Your task to perform on an android device: toggle airplane mode Image 0: 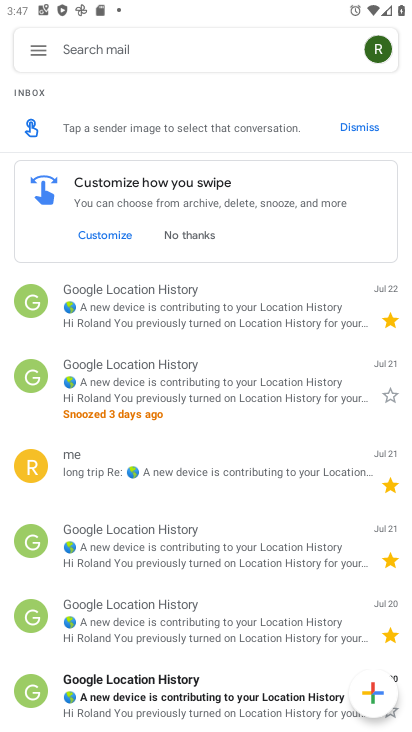
Step 0: press home button
Your task to perform on an android device: toggle airplane mode Image 1: 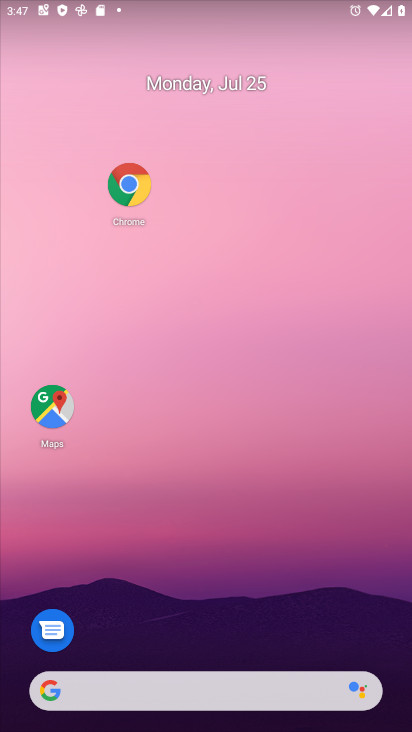
Step 1: drag from (236, 626) to (203, 157)
Your task to perform on an android device: toggle airplane mode Image 2: 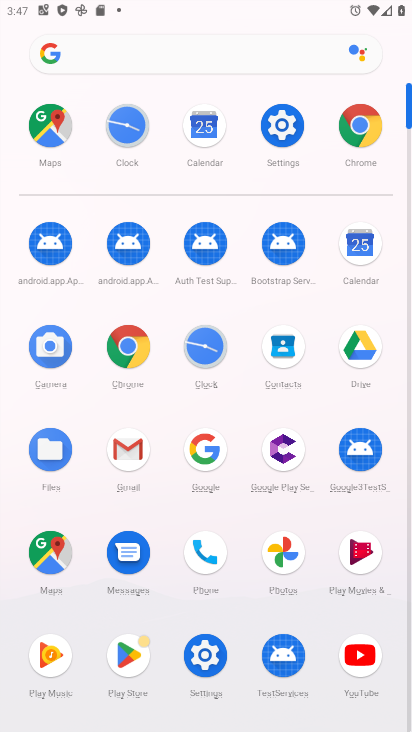
Step 2: click (274, 122)
Your task to perform on an android device: toggle airplane mode Image 3: 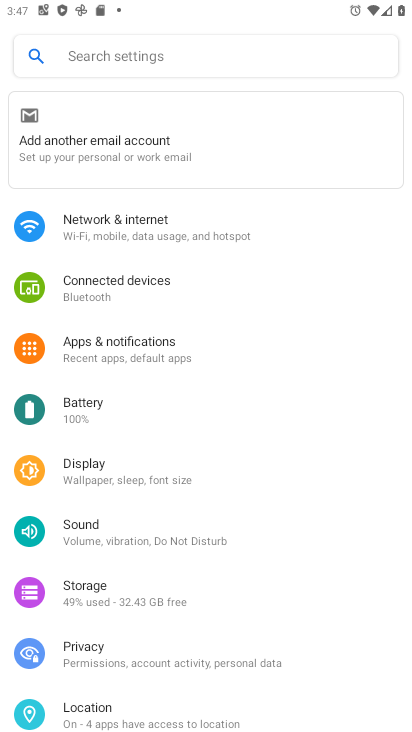
Step 3: task complete